Your task to perform on an android device: Open calendar and show me the first week of next month Image 0: 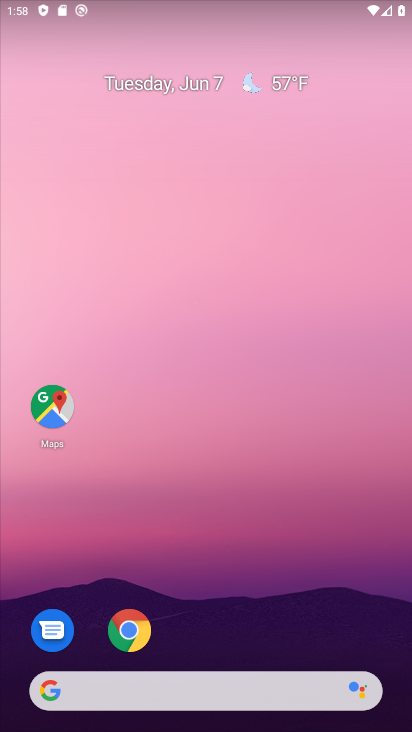
Step 0: drag from (385, 691) to (345, 59)
Your task to perform on an android device: Open calendar and show me the first week of next month Image 1: 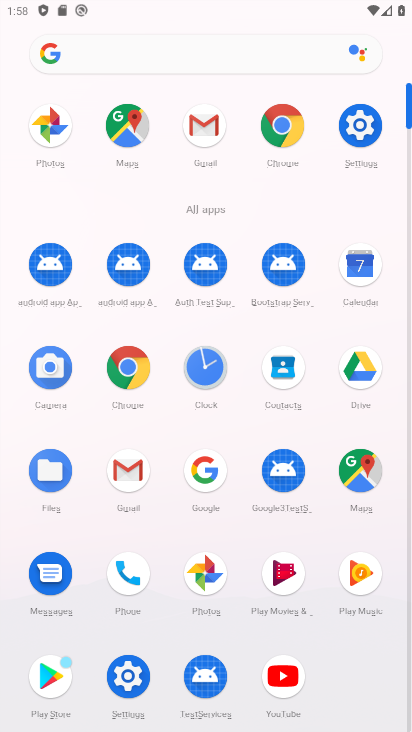
Step 1: click (355, 261)
Your task to perform on an android device: Open calendar and show me the first week of next month Image 2: 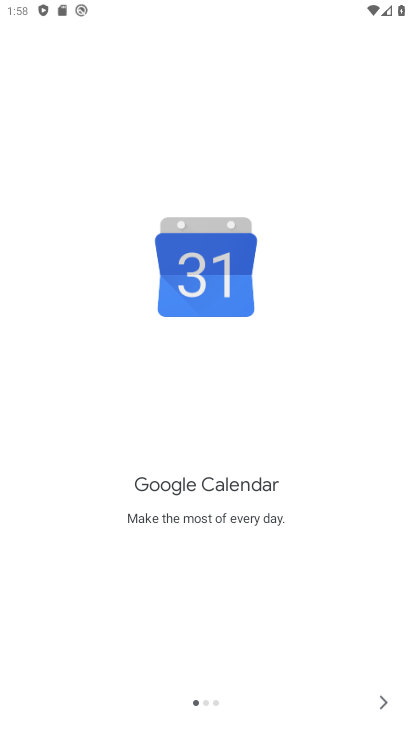
Step 2: click (378, 692)
Your task to perform on an android device: Open calendar and show me the first week of next month Image 3: 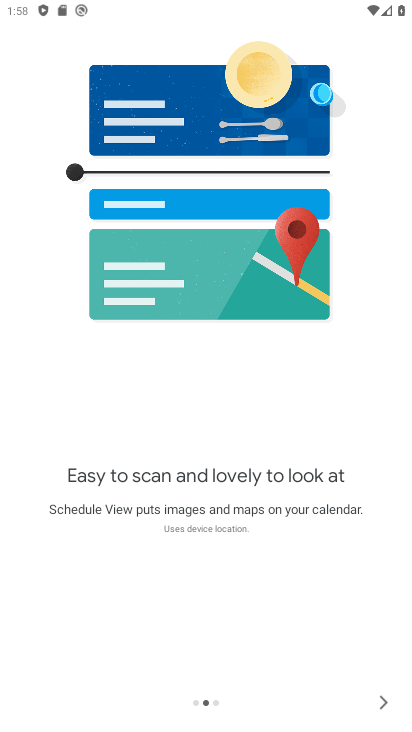
Step 3: click (378, 692)
Your task to perform on an android device: Open calendar and show me the first week of next month Image 4: 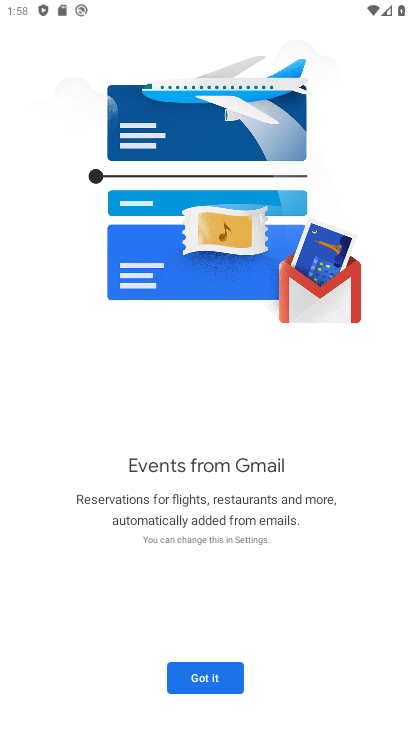
Step 4: click (224, 671)
Your task to perform on an android device: Open calendar and show me the first week of next month Image 5: 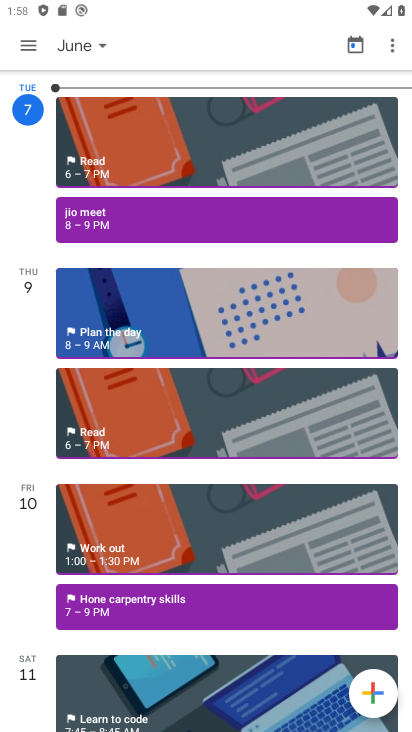
Step 5: click (107, 45)
Your task to perform on an android device: Open calendar and show me the first week of next month Image 6: 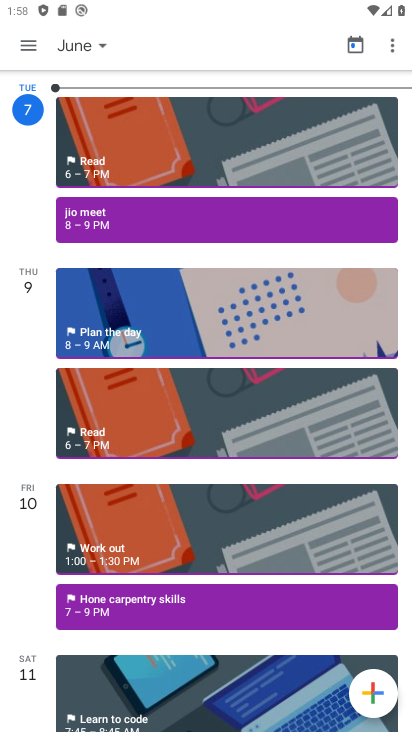
Step 6: click (101, 45)
Your task to perform on an android device: Open calendar and show me the first week of next month Image 7: 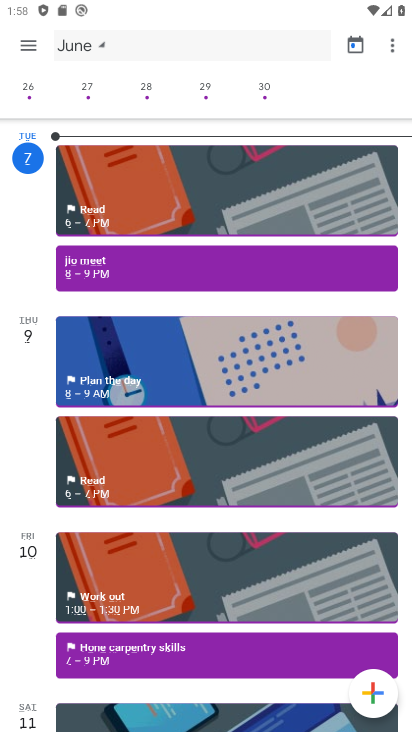
Step 7: click (100, 41)
Your task to perform on an android device: Open calendar and show me the first week of next month Image 8: 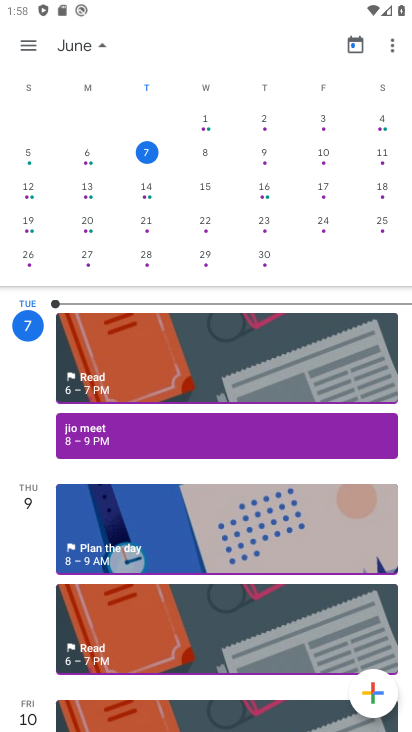
Step 8: drag from (401, 183) to (0, 172)
Your task to perform on an android device: Open calendar and show me the first week of next month Image 9: 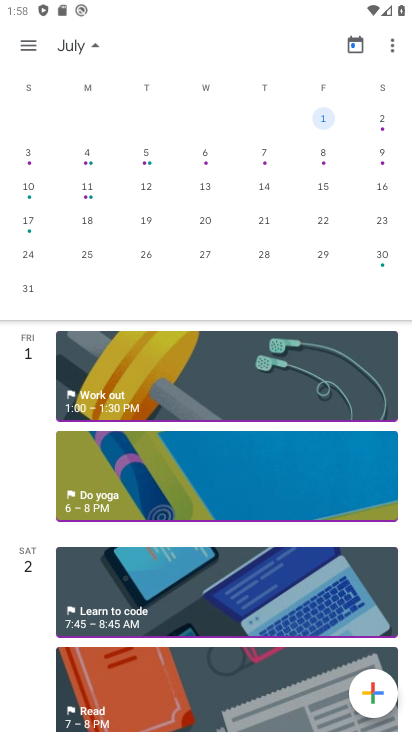
Step 9: click (381, 115)
Your task to perform on an android device: Open calendar and show me the first week of next month Image 10: 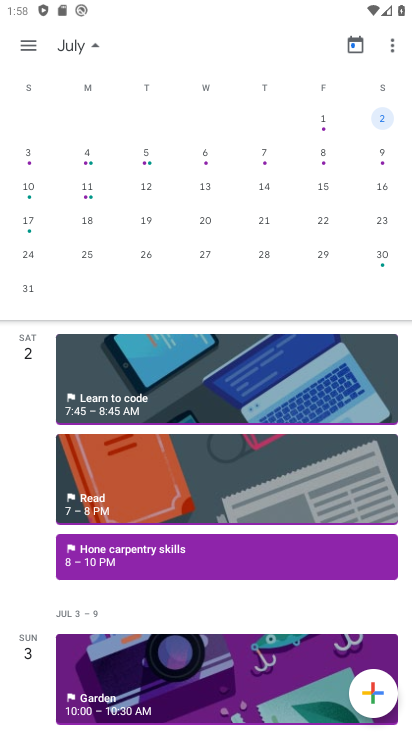
Step 10: click (23, 42)
Your task to perform on an android device: Open calendar and show me the first week of next month Image 11: 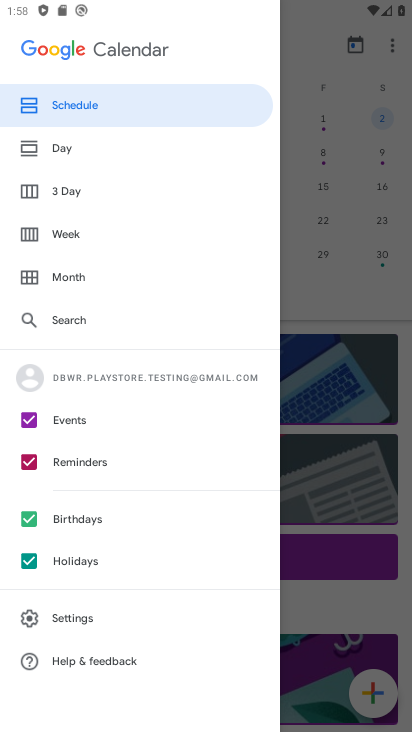
Step 11: click (49, 228)
Your task to perform on an android device: Open calendar and show me the first week of next month Image 12: 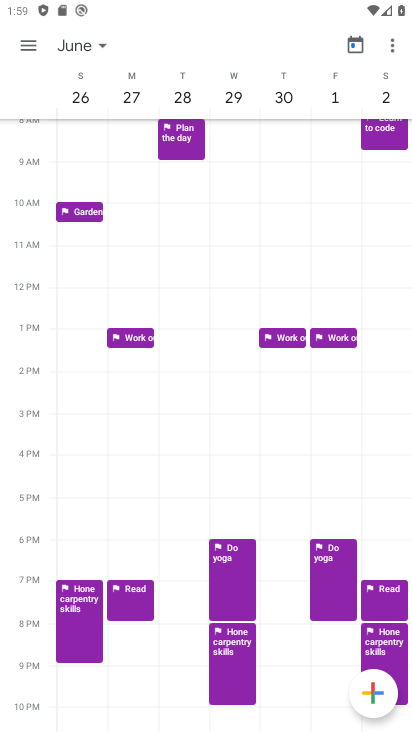
Step 12: task complete